Your task to perform on an android device: Is it going to rain tomorrow? Image 0: 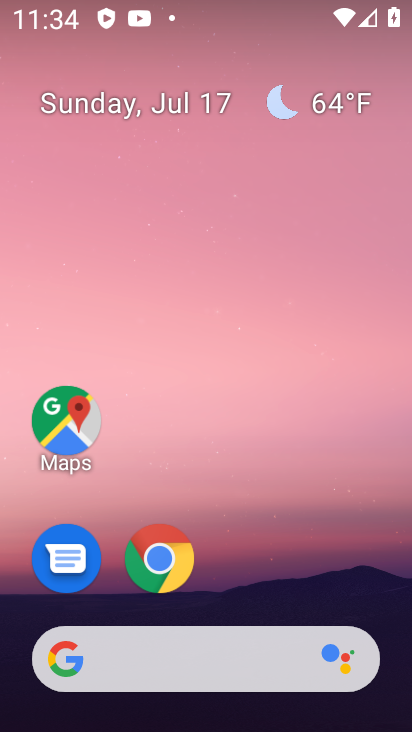
Step 0: click (220, 656)
Your task to perform on an android device: Is it going to rain tomorrow? Image 1: 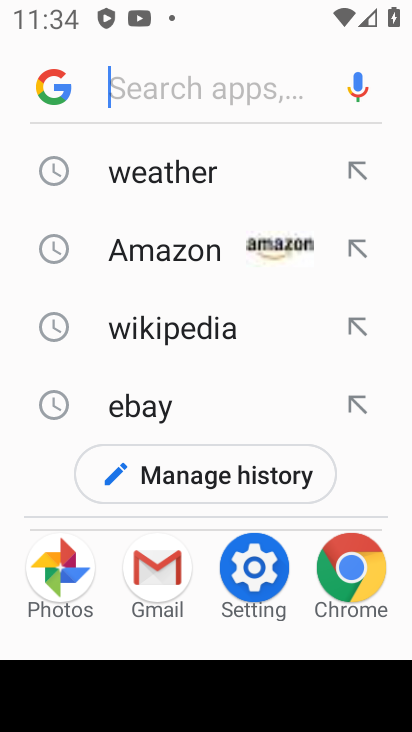
Step 1: click (219, 167)
Your task to perform on an android device: Is it going to rain tomorrow? Image 2: 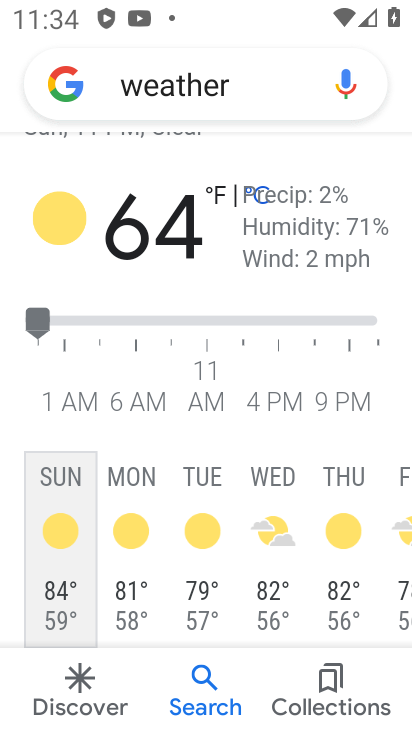
Step 2: click (214, 501)
Your task to perform on an android device: Is it going to rain tomorrow? Image 3: 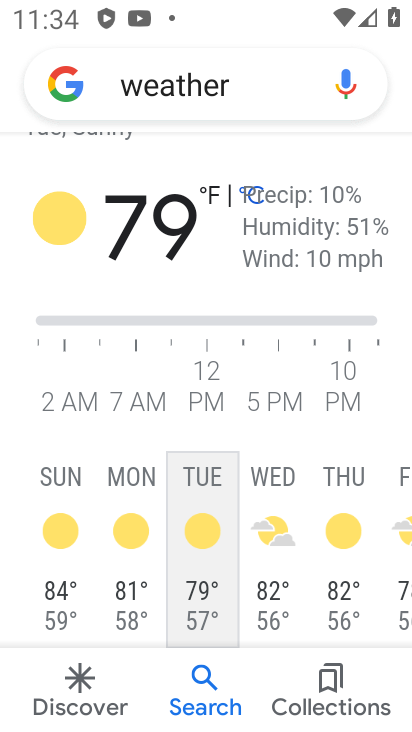
Step 3: task complete